Your task to perform on an android device: Open calendar and show me the third week of next month Image 0: 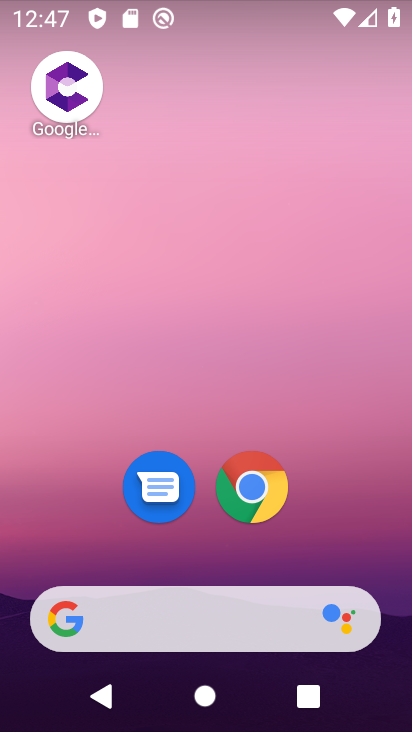
Step 0: drag from (94, 554) to (172, 50)
Your task to perform on an android device: Open calendar and show me the third week of next month Image 1: 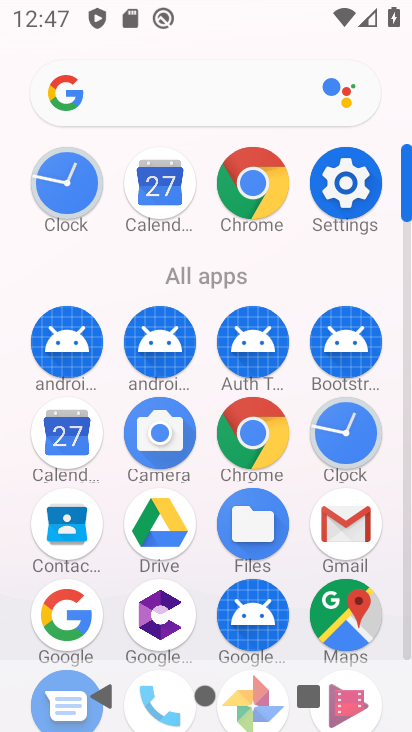
Step 1: click (53, 441)
Your task to perform on an android device: Open calendar and show me the third week of next month Image 2: 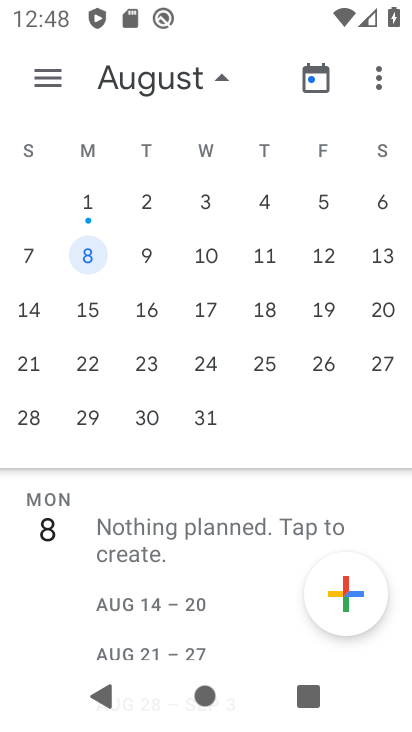
Step 2: click (81, 311)
Your task to perform on an android device: Open calendar and show me the third week of next month Image 3: 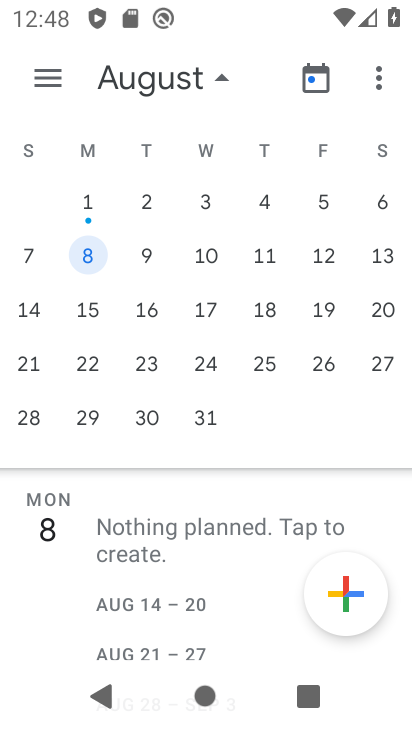
Step 3: click (91, 299)
Your task to perform on an android device: Open calendar and show me the third week of next month Image 4: 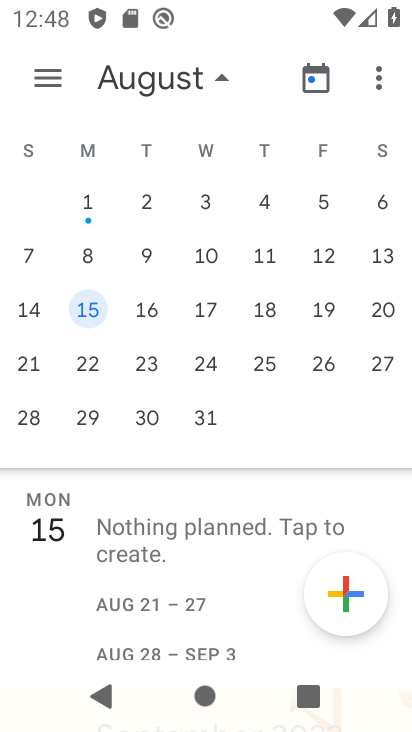
Step 4: task complete